Your task to perform on an android device: Open internet settings Image 0: 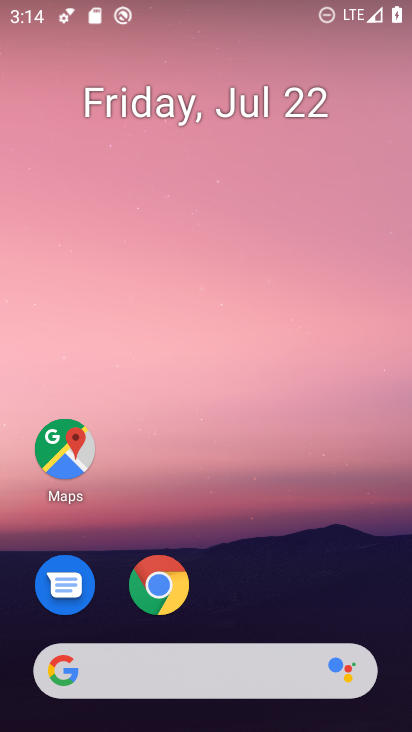
Step 0: drag from (300, 513) to (324, 7)
Your task to perform on an android device: Open internet settings Image 1: 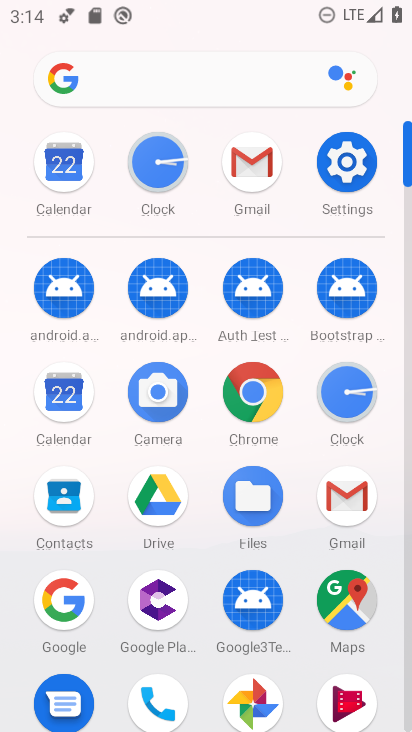
Step 1: click (346, 171)
Your task to perform on an android device: Open internet settings Image 2: 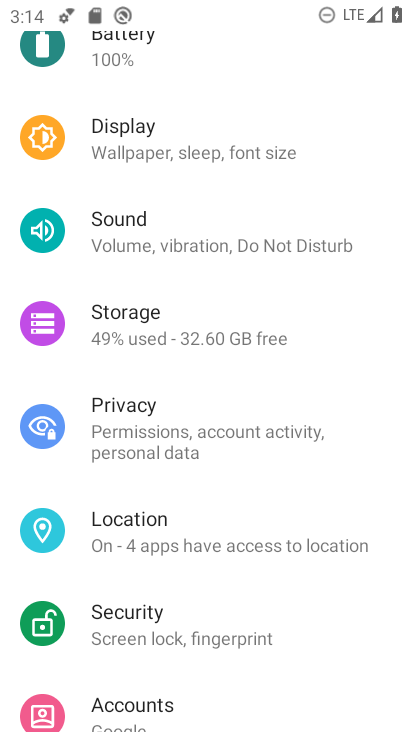
Step 2: drag from (232, 204) to (265, 703)
Your task to perform on an android device: Open internet settings Image 3: 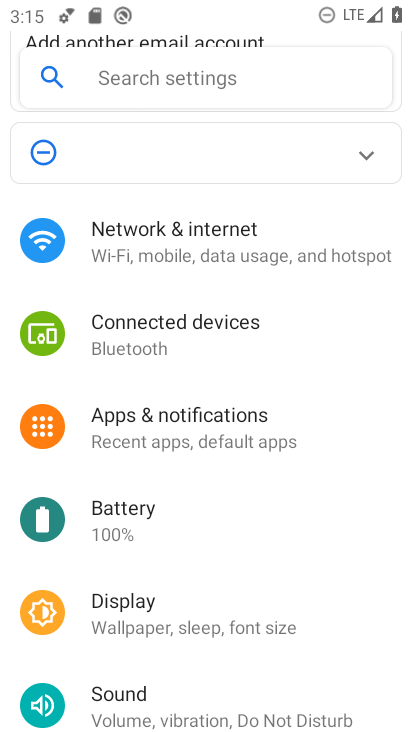
Step 3: click (256, 249)
Your task to perform on an android device: Open internet settings Image 4: 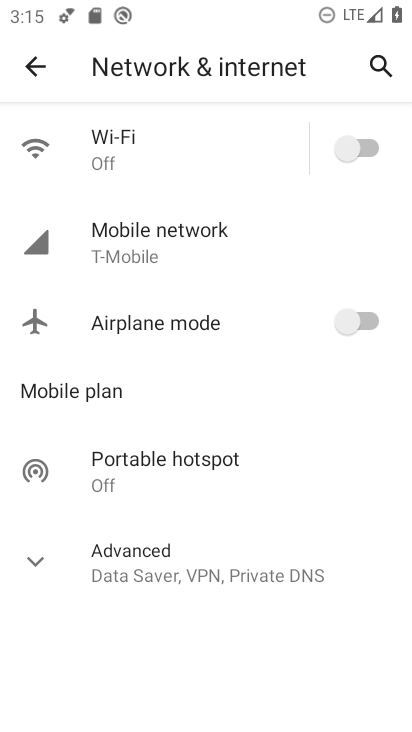
Step 4: task complete